Your task to perform on an android device: change the clock display to digital Image 0: 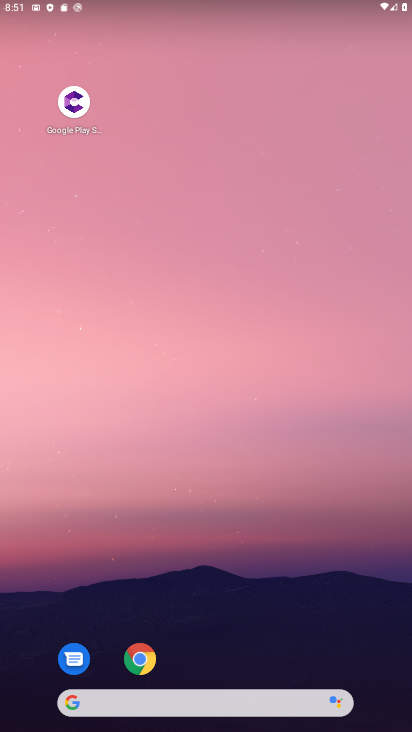
Step 0: drag from (214, 671) to (171, 82)
Your task to perform on an android device: change the clock display to digital Image 1: 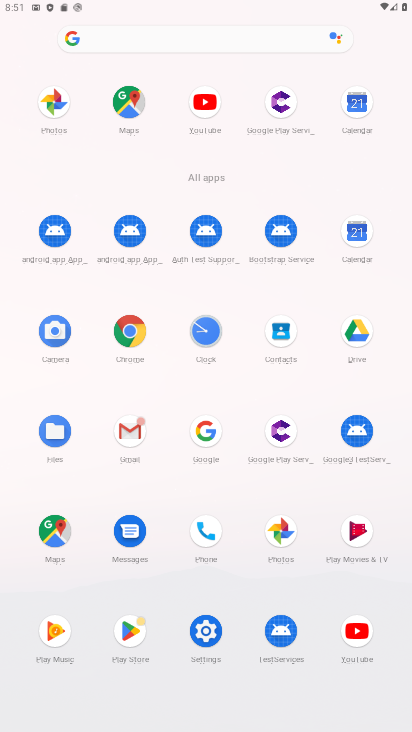
Step 1: click (199, 343)
Your task to perform on an android device: change the clock display to digital Image 2: 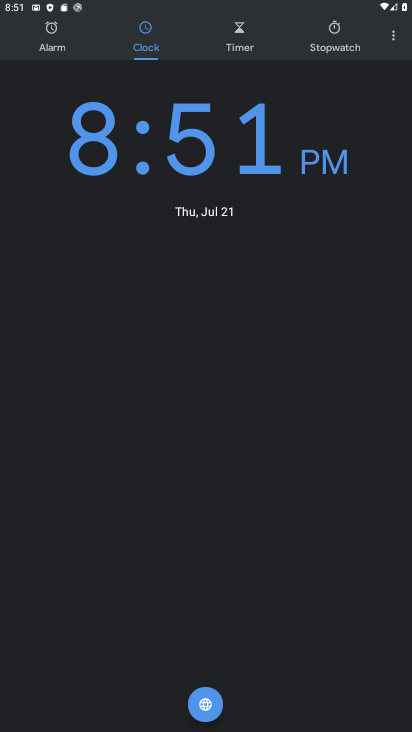
Step 2: click (394, 49)
Your task to perform on an android device: change the clock display to digital Image 3: 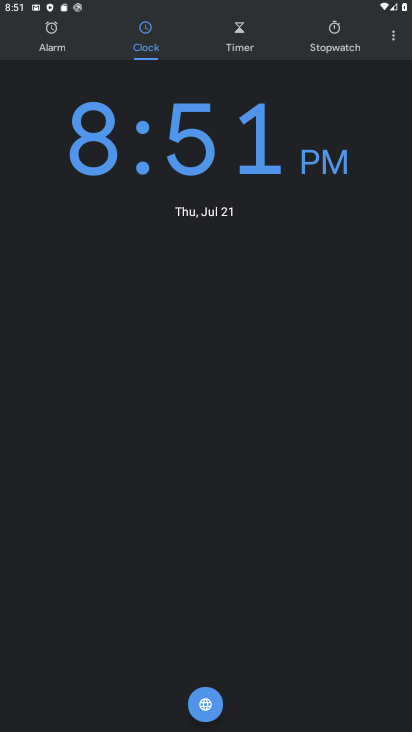
Step 3: drag from (387, 35) to (347, 72)
Your task to perform on an android device: change the clock display to digital Image 4: 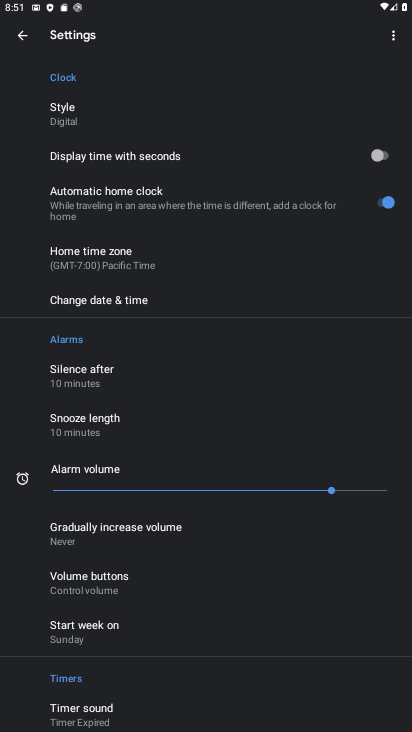
Step 4: click (101, 115)
Your task to perform on an android device: change the clock display to digital Image 5: 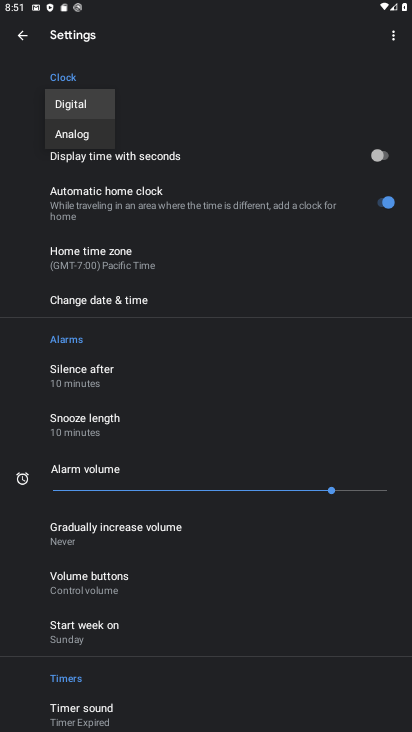
Step 5: click (90, 111)
Your task to perform on an android device: change the clock display to digital Image 6: 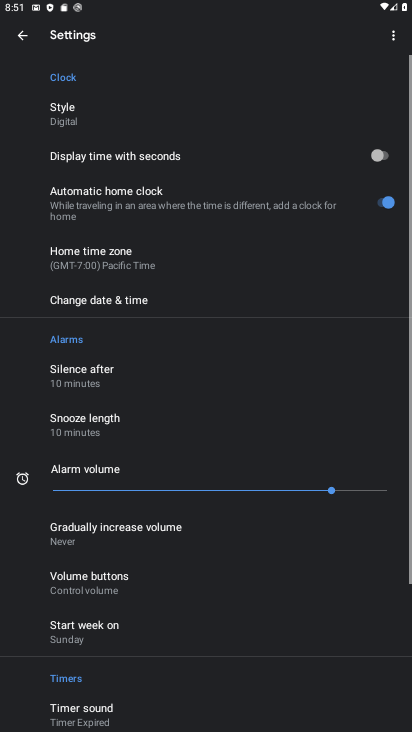
Step 6: task complete